Your task to perform on an android device: Do I have any events this weekend? Image 0: 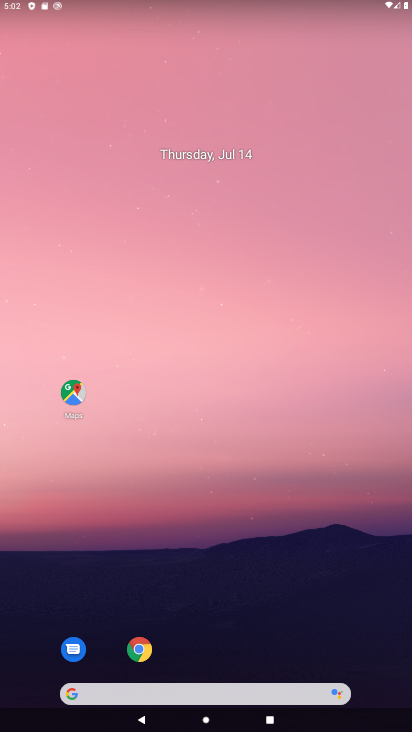
Step 0: drag from (219, 655) to (293, 8)
Your task to perform on an android device: Do I have any events this weekend? Image 1: 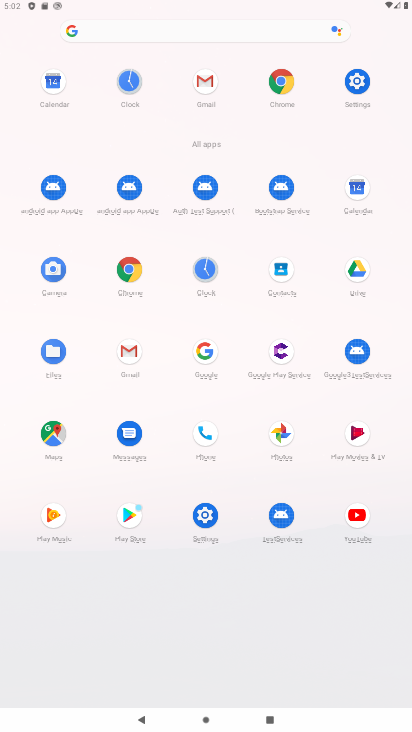
Step 1: click (356, 191)
Your task to perform on an android device: Do I have any events this weekend? Image 2: 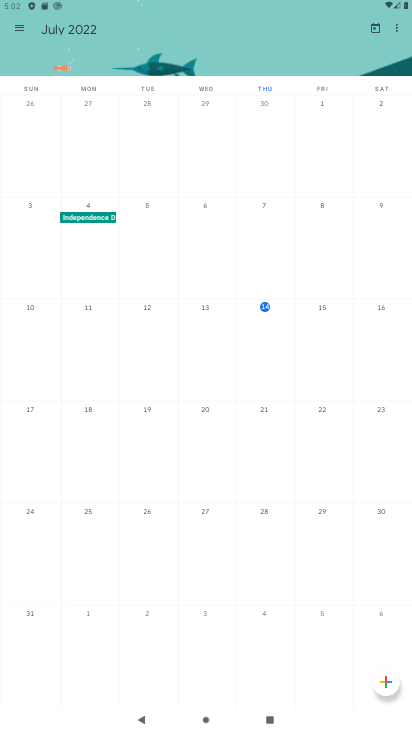
Step 2: drag from (346, 364) to (49, 364)
Your task to perform on an android device: Do I have any events this weekend? Image 3: 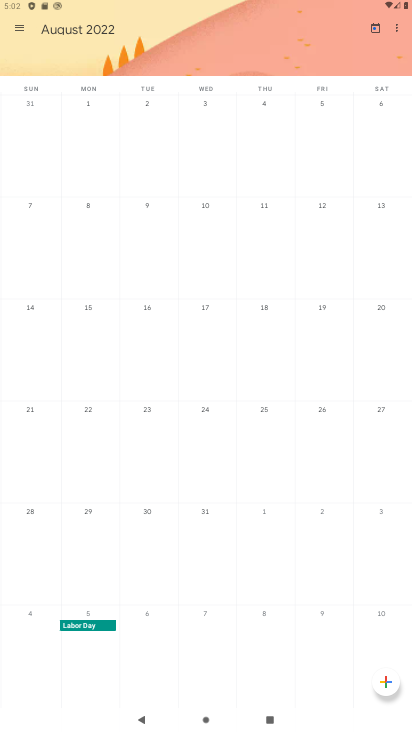
Step 3: drag from (62, 357) to (409, 347)
Your task to perform on an android device: Do I have any events this weekend? Image 4: 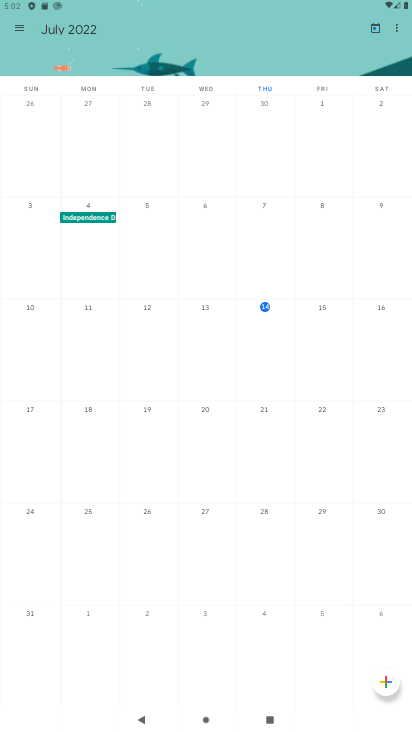
Step 4: click (21, 23)
Your task to perform on an android device: Do I have any events this weekend? Image 5: 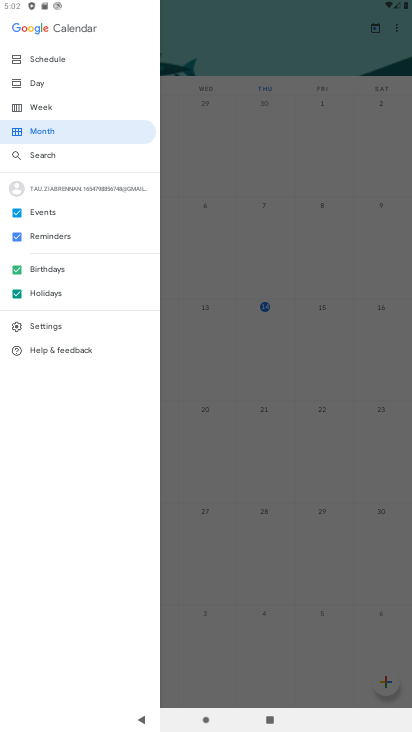
Step 5: click (71, 48)
Your task to perform on an android device: Do I have any events this weekend? Image 6: 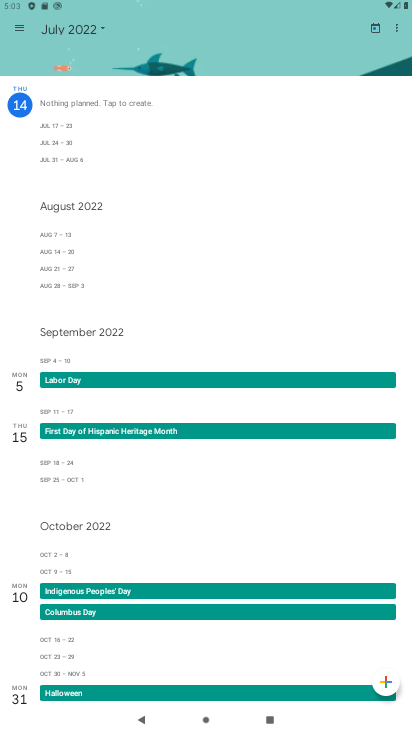
Step 6: task complete